Your task to perform on an android device: Is it going to rain tomorrow? Image 0: 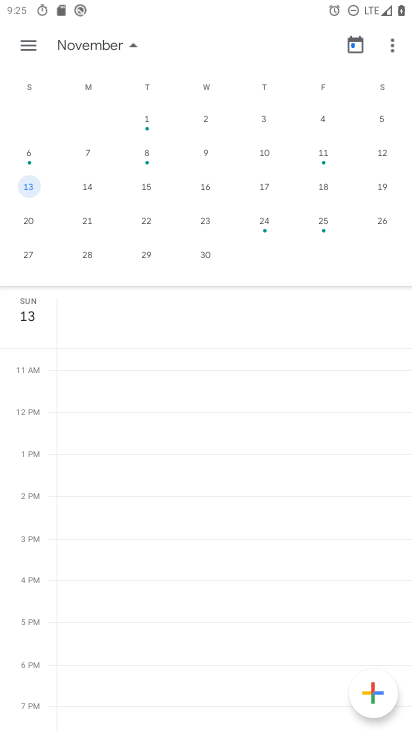
Step 0: press home button
Your task to perform on an android device: Is it going to rain tomorrow? Image 1: 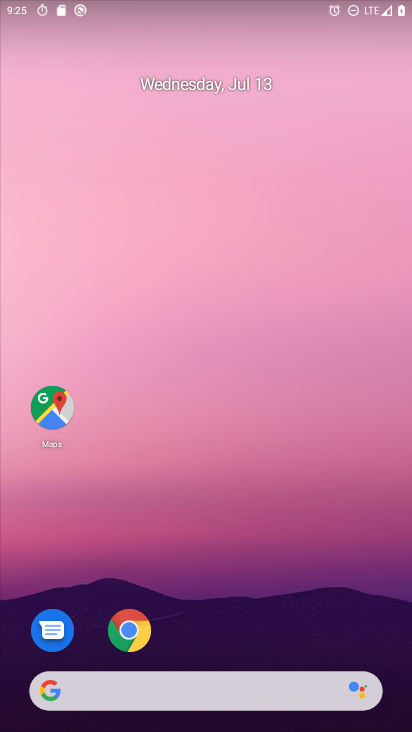
Step 1: drag from (390, 663) to (185, 54)
Your task to perform on an android device: Is it going to rain tomorrow? Image 2: 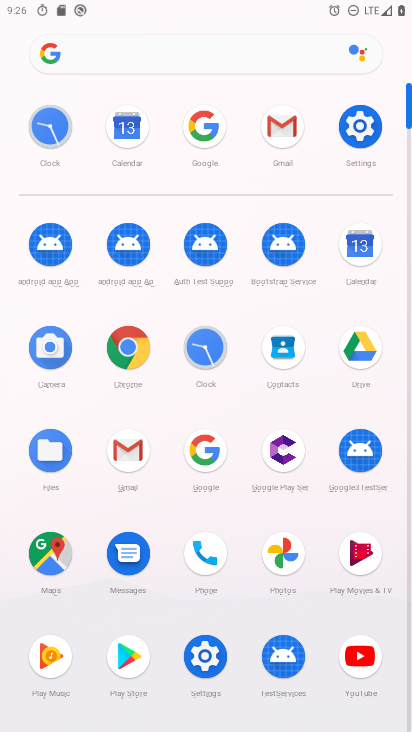
Step 2: click (208, 464)
Your task to perform on an android device: Is it going to rain tomorrow? Image 3: 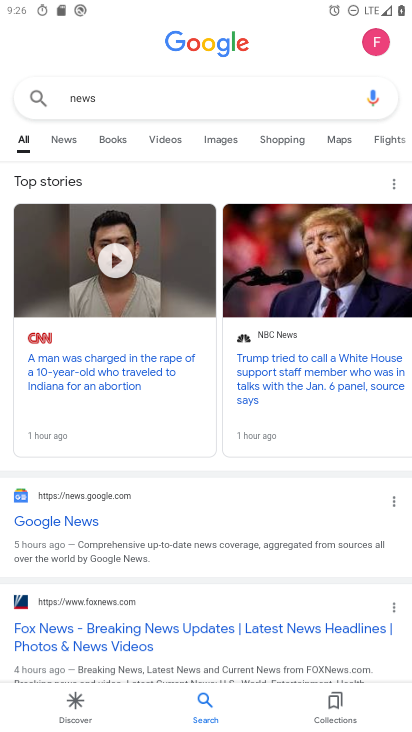
Step 3: press back button
Your task to perform on an android device: Is it going to rain tomorrow? Image 4: 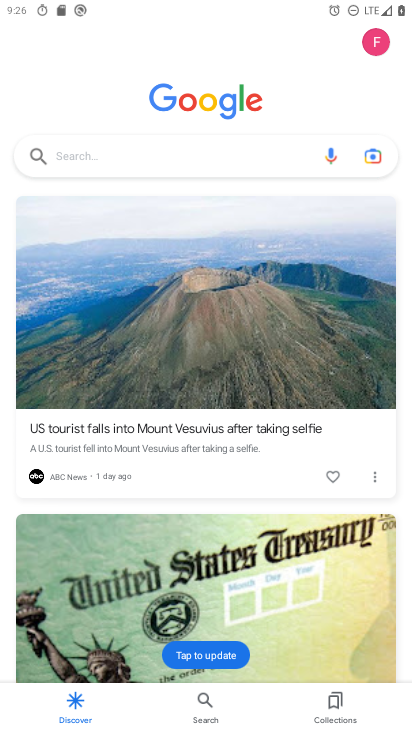
Step 4: click (85, 166)
Your task to perform on an android device: Is it going to rain tomorrow? Image 5: 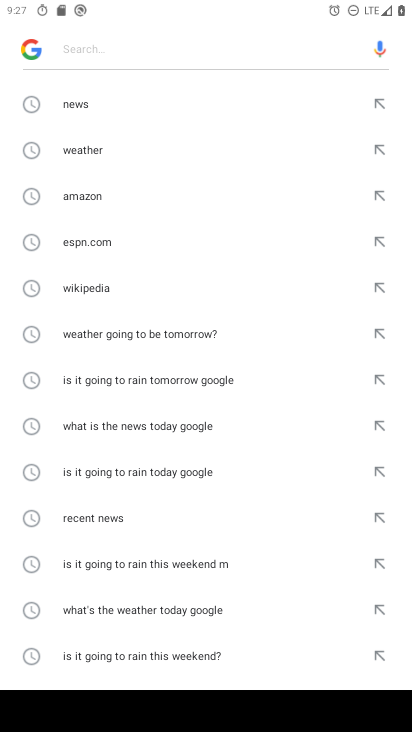
Step 5: type "Is it going to rain tomorrow?"
Your task to perform on an android device: Is it going to rain tomorrow? Image 6: 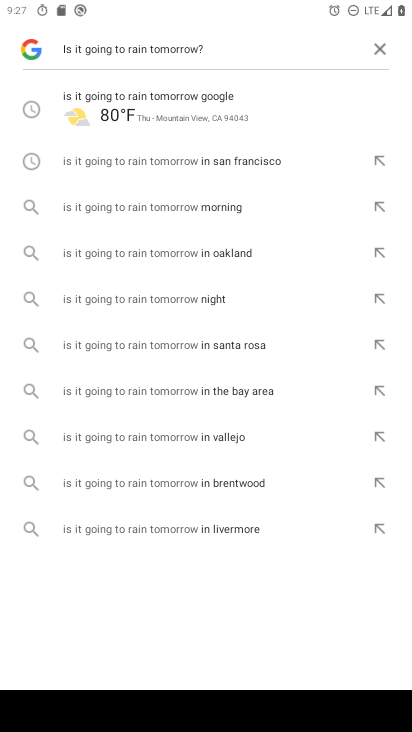
Step 6: click (201, 108)
Your task to perform on an android device: Is it going to rain tomorrow? Image 7: 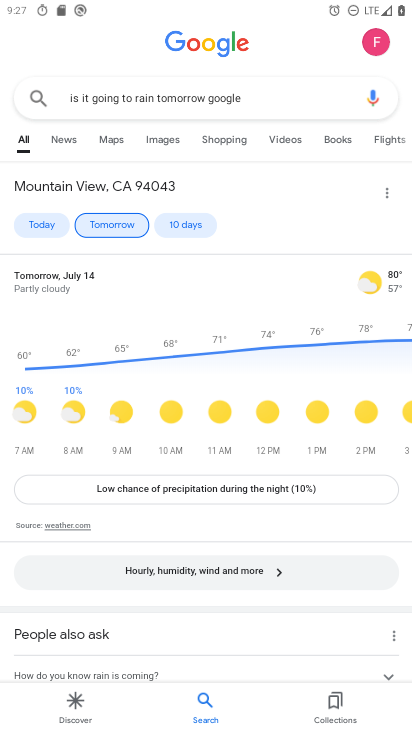
Step 7: task complete